Your task to perform on an android device: Search for pizza restaurants on Maps Image 0: 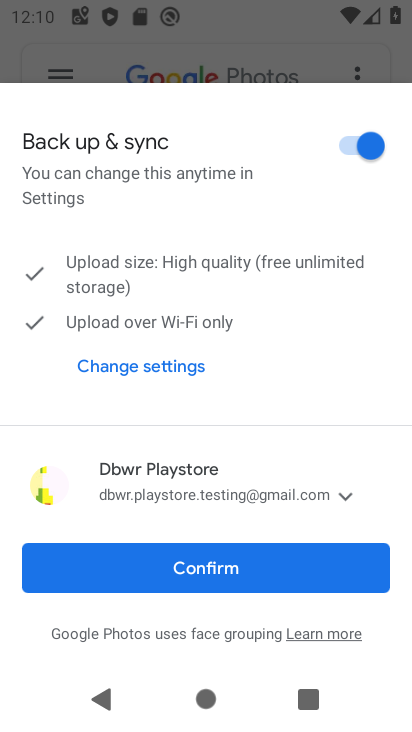
Step 0: press home button
Your task to perform on an android device: Search for pizza restaurants on Maps Image 1: 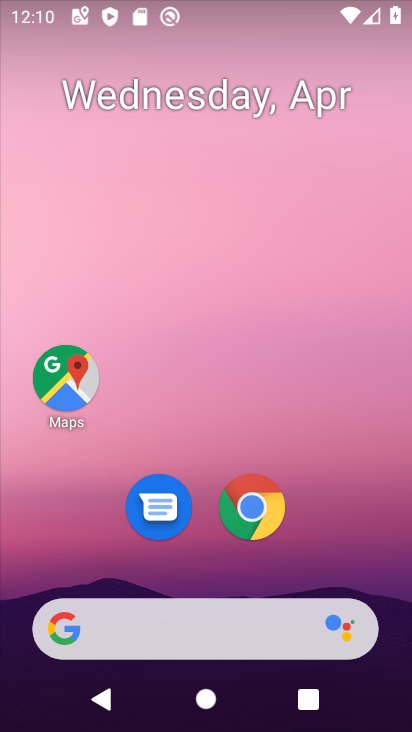
Step 1: click (59, 385)
Your task to perform on an android device: Search for pizza restaurants on Maps Image 2: 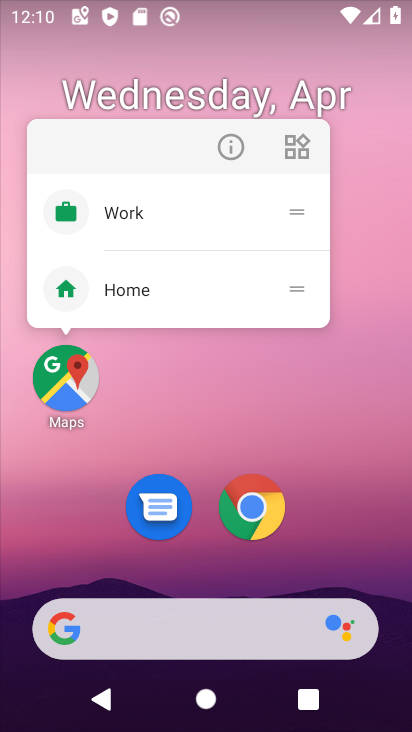
Step 2: click (63, 382)
Your task to perform on an android device: Search for pizza restaurants on Maps Image 3: 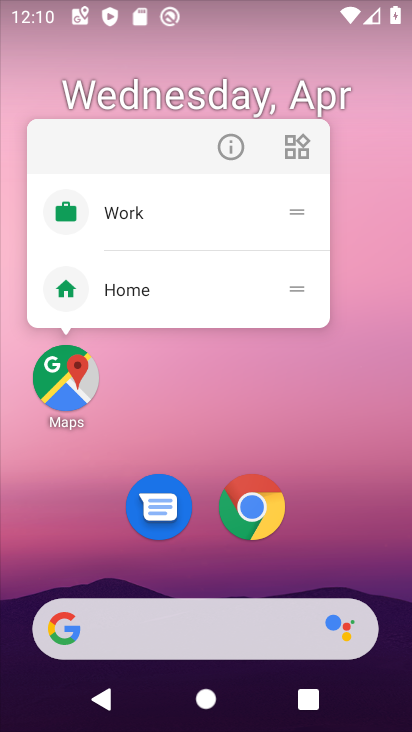
Step 3: click (63, 382)
Your task to perform on an android device: Search for pizza restaurants on Maps Image 4: 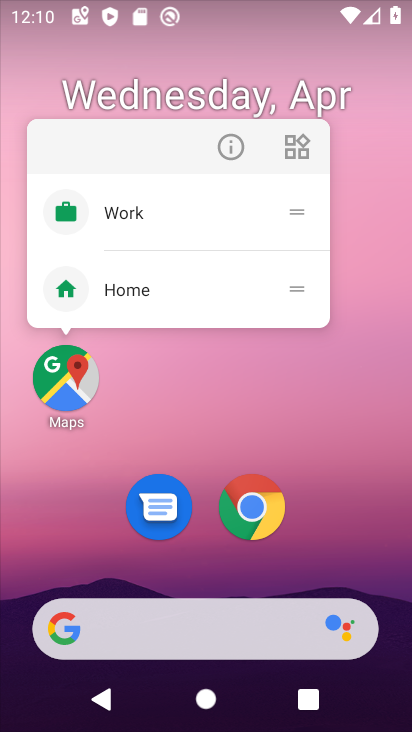
Step 4: click (63, 382)
Your task to perform on an android device: Search for pizza restaurants on Maps Image 5: 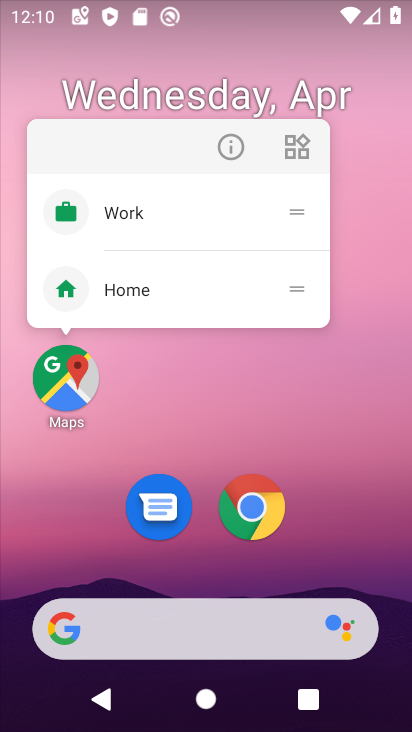
Step 5: click (85, 382)
Your task to perform on an android device: Search for pizza restaurants on Maps Image 6: 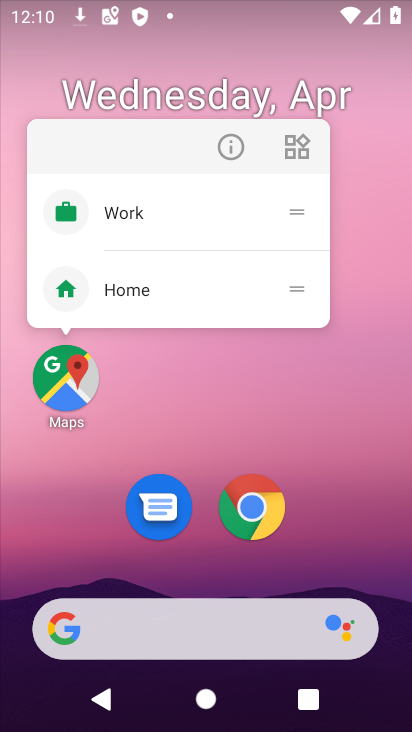
Step 6: click (245, 421)
Your task to perform on an android device: Search for pizza restaurants on Maps Image 7: 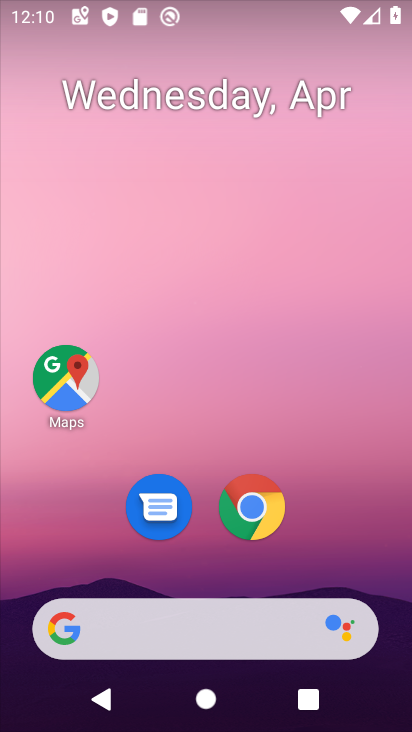
Step 7: click (72, 372)
Your task to perform on an android device: Search for pizza restaurants on Maps Image 8: 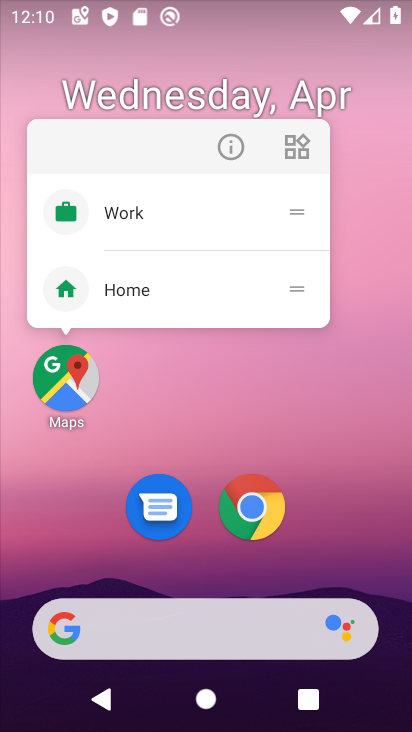
Step 8: click (61, 373)
Your task to perform on an android device: Search for pizza restaurants on Maps Image 9: 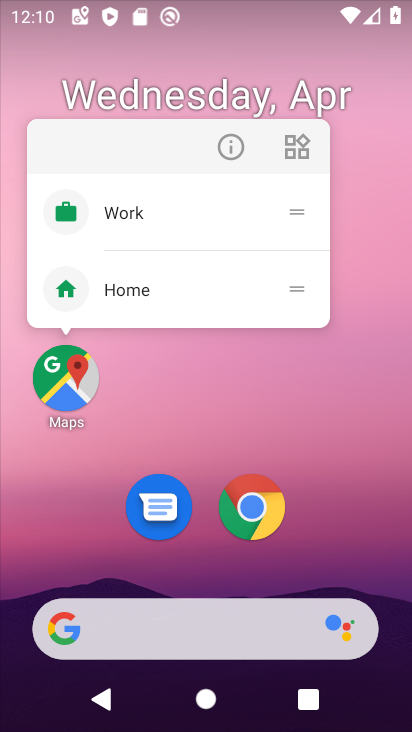
Step 9: click (61, 373)
Your task to perform on an android device: Search for pizza restaurants on Maps Image 10: 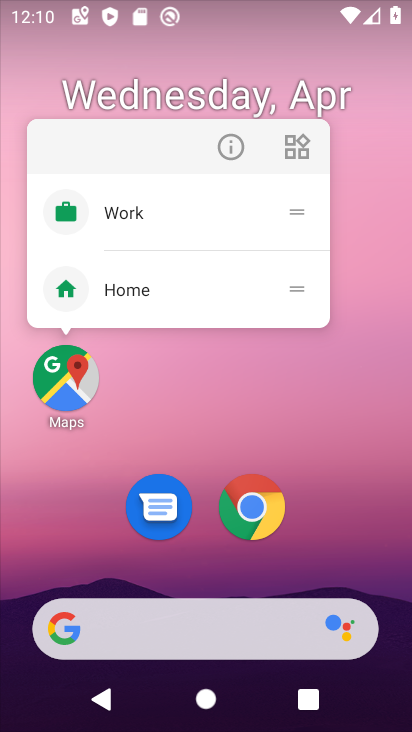
Step 10: click (61, 373)
Your task to perform on an android device: Search for pizza restaurants on Maps Image 11: 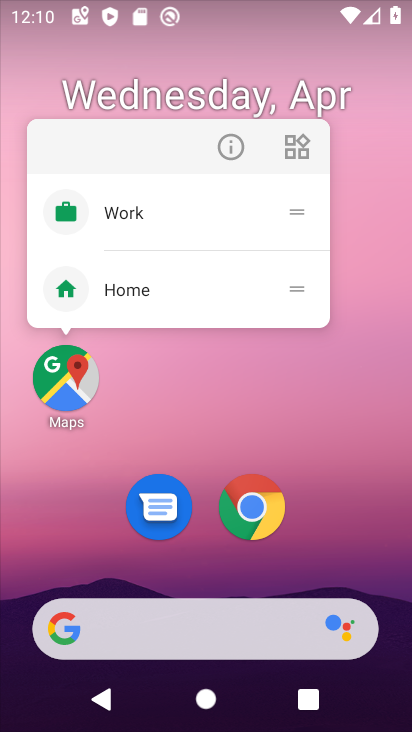
Step 11: click (61, 373)
Your task to perform on an android device: Search for pizza restaurants on Maps Image 12: 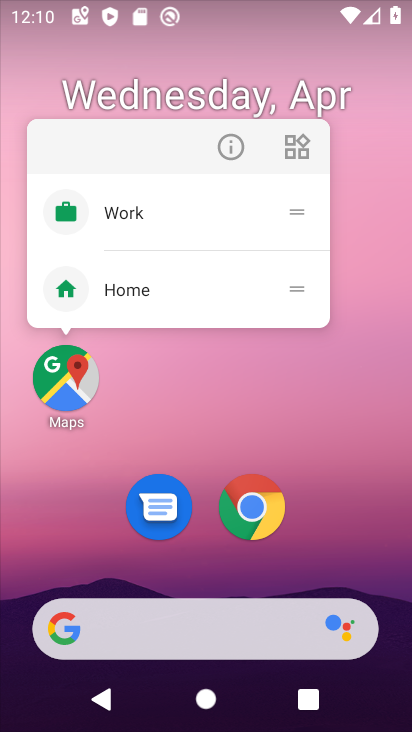
Step 12: click (208, 383)
Your task to perform on an android device: Search for pizza restaurants on Maps Image 13: 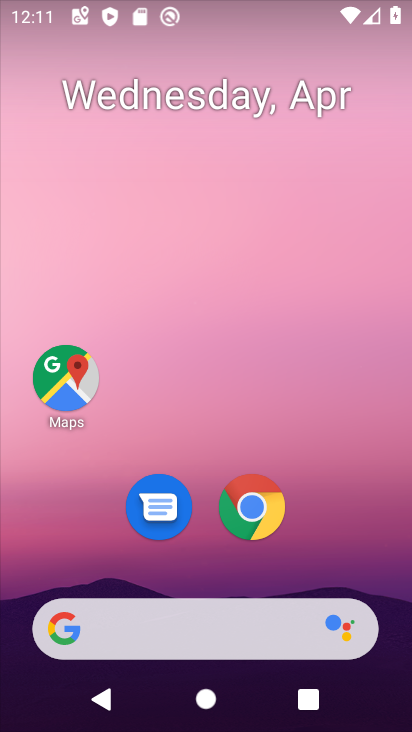
Step 13: click (61, 369)
Your task to perform on an android device: Search for pizza restaurants on Maps Image 14: 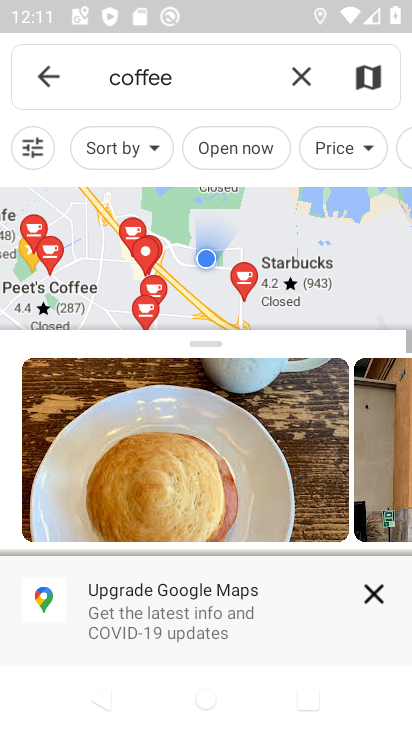
Step 14: click (295, 76)
Your task to perform on an android device: Search for pizza restaurants on Maps Image 15: 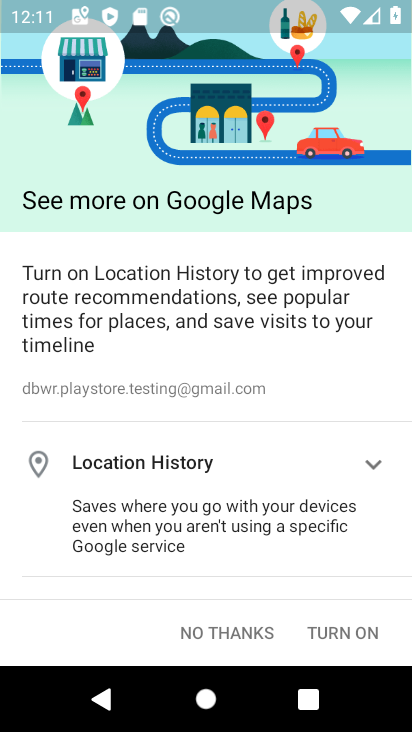
Step 15: click (336, 627)
Your task to perform on an android device: Search for pizza restaurants on Maps Image 16: 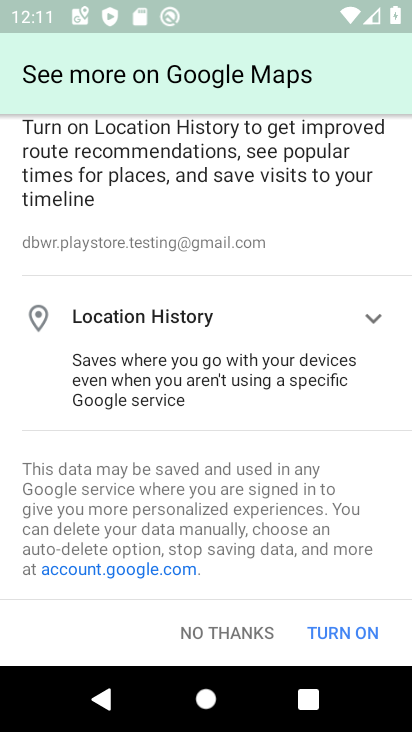
Step 16: click (342, 634)
Your task to perform on an android device: Search for pizza restaurants on Maps Image 17: 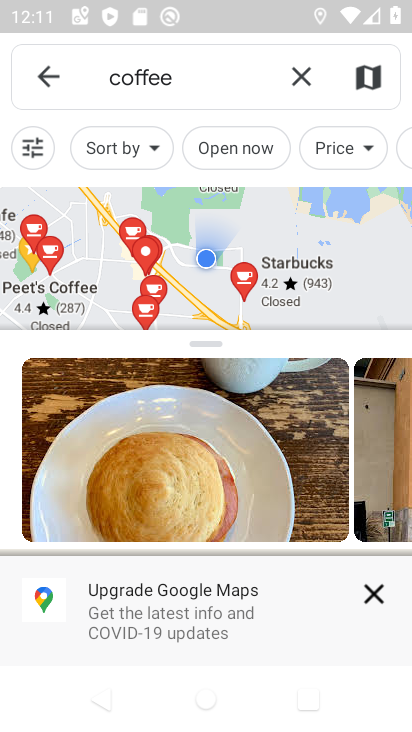
Step 17: click (306, 76)
Your task to perform on an android device: Search for pizza restaurants on Maps Image 18: 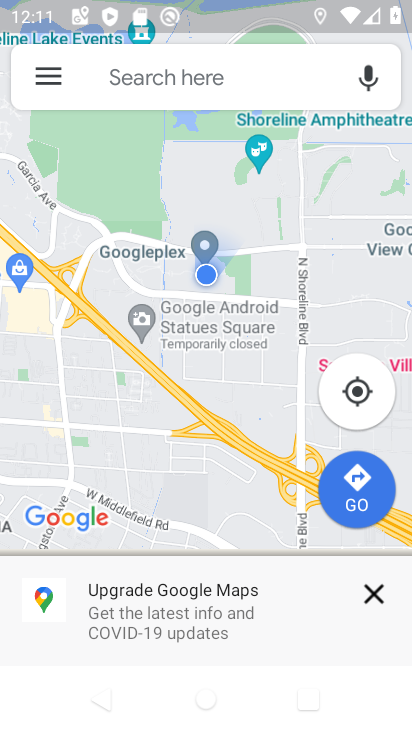
Step 18: type "pizza restaurants"
Your task to perform on an android device: Search for pizza restaurants on Maps Image 19: 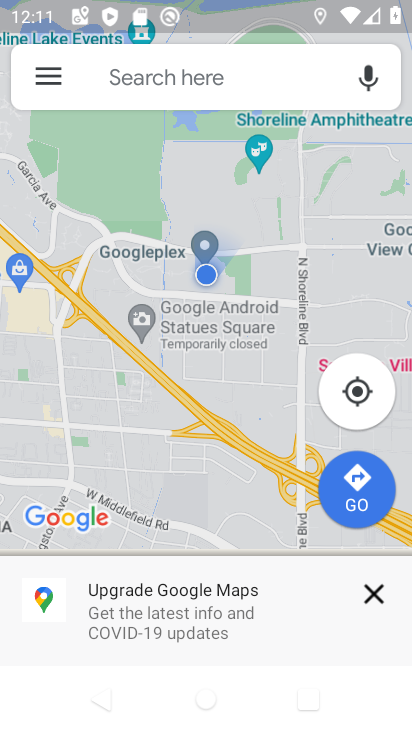
Step 19: click (129, 86)
Your task to perform on an android device: Search for pizza restaurants on Maps Image 20: 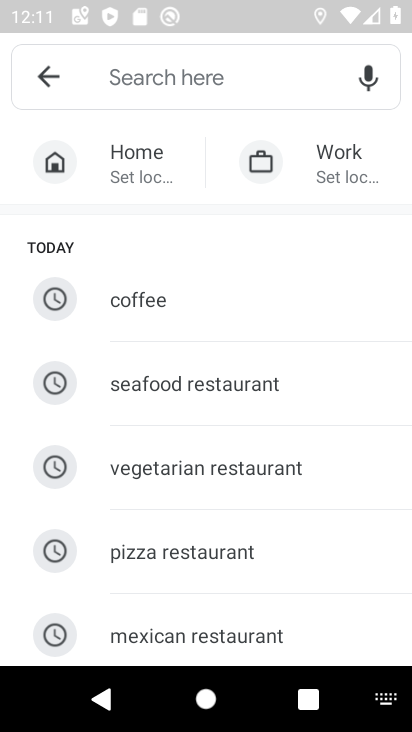
Step 20: type "pizza restaurants"
Your task to perform on an android device: Search for pizza restaurants on Maps Image 21: 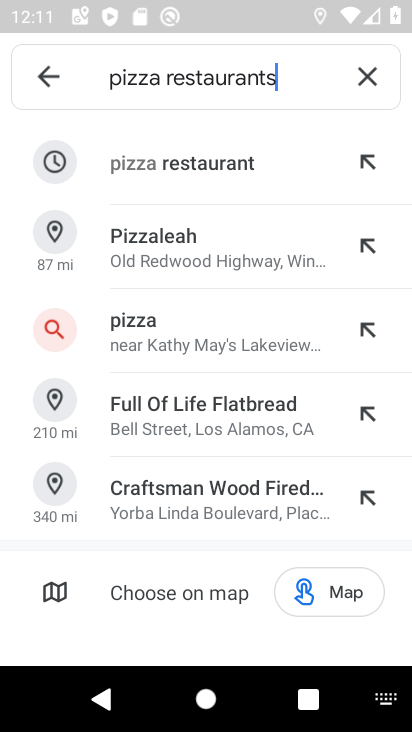
Step 21: click (229, 154)
Your task to perform on an android device: Search for pizza restaurants on Maps Image 22: 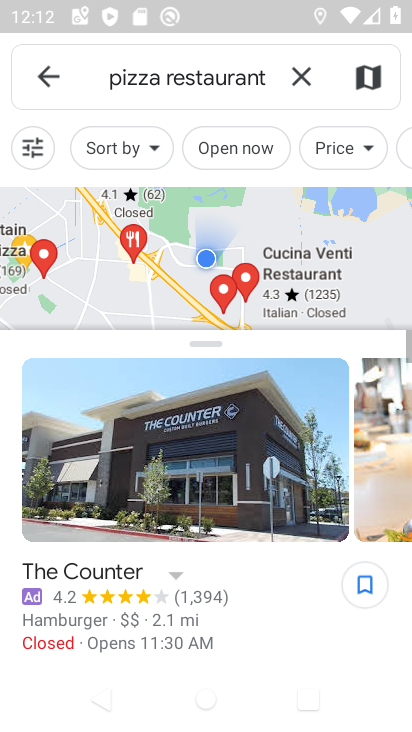
Step 22: task complete